Your task to perform on an android device: add a contact Image 0: 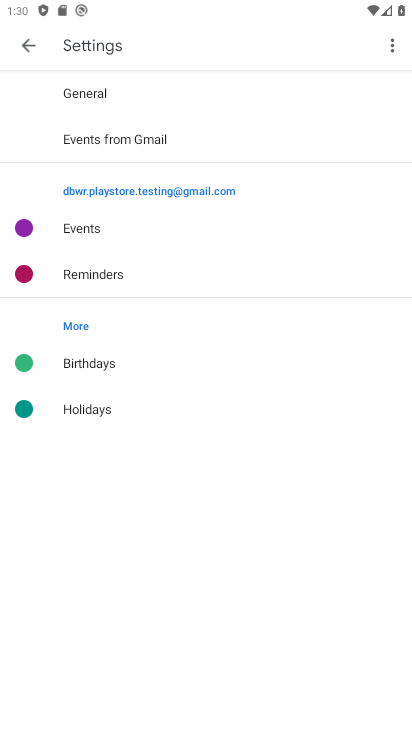
Step 0: press home button
Your task to perform on an android device: add a contact Image 1: 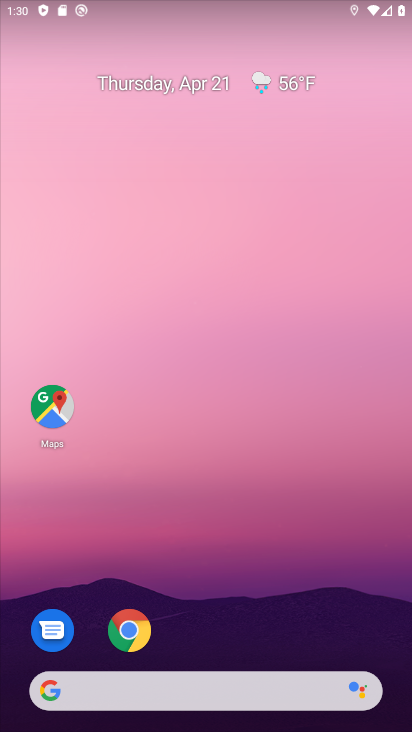
Step 1: drag from (271, 573) to (202, 113)
Your task to perform on an android device: add a contact Image 2: 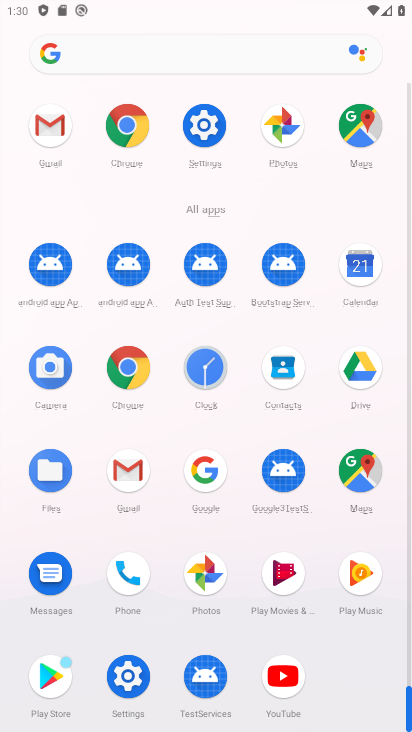
Step 2: click (285, 372)
Your task to perform on an android device: add a contact Image 3: 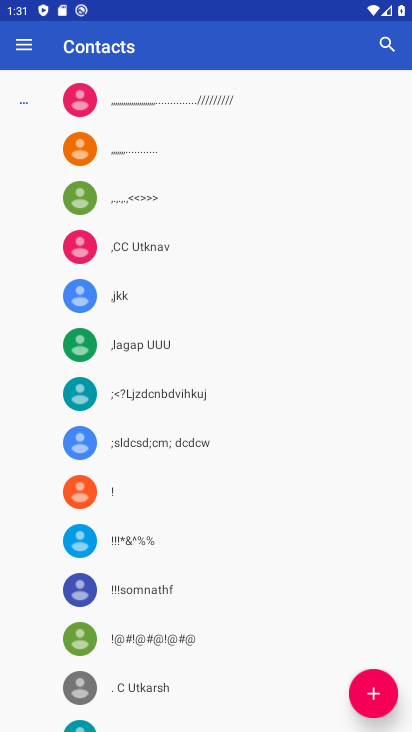
Step 3: click (368, 686)
Your task to perform on an android device: add a contact Image 4: 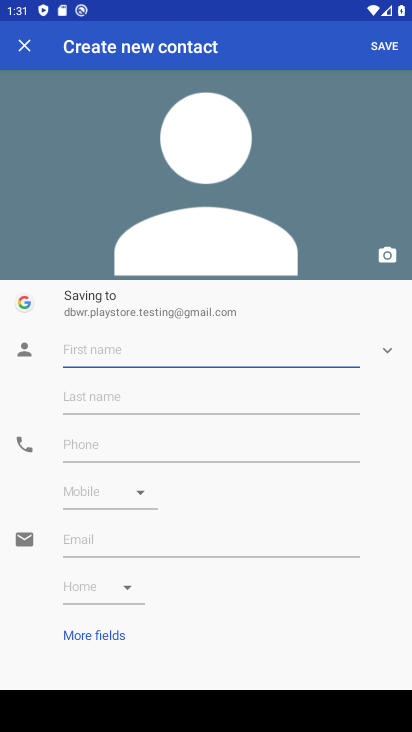
Step 4: type "opppp"
Your task to perform on an android device: add a contact Image 5: 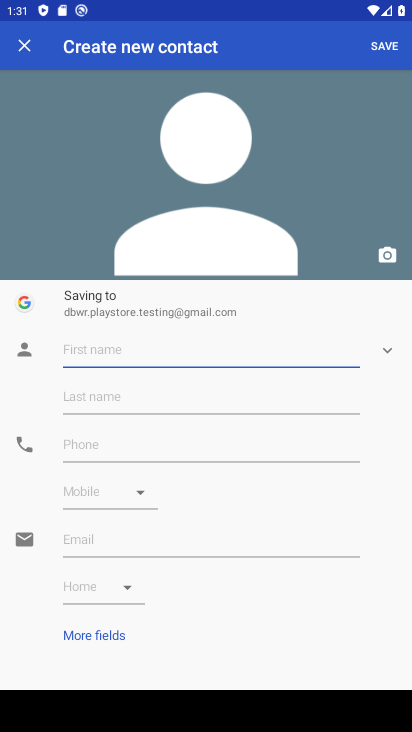
Step 5: click (133, 452)
Your task to perform on an android device: add a contact Image 6: 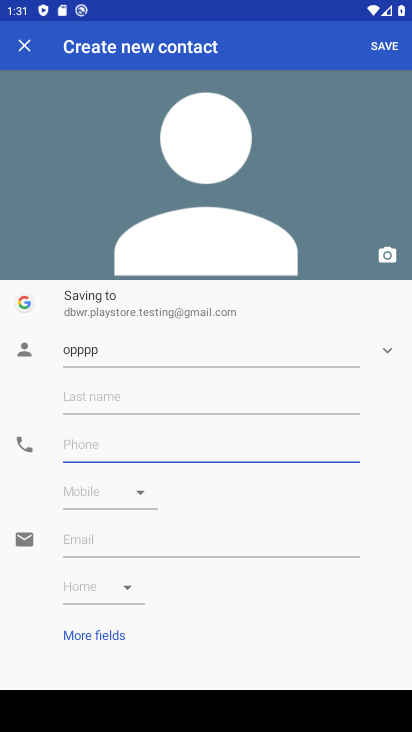
Step 6: type "122345678901"
Your task to perform on an android device: add a contact Image 7: 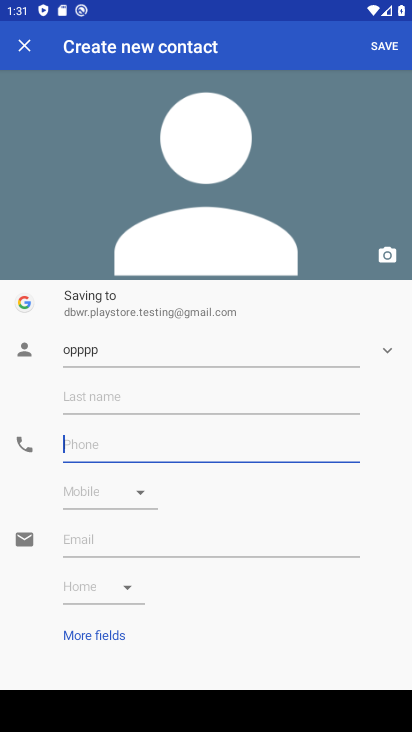
Step 7: click (388, 49)
Your task to perform on an android device: add a contact Image 8: 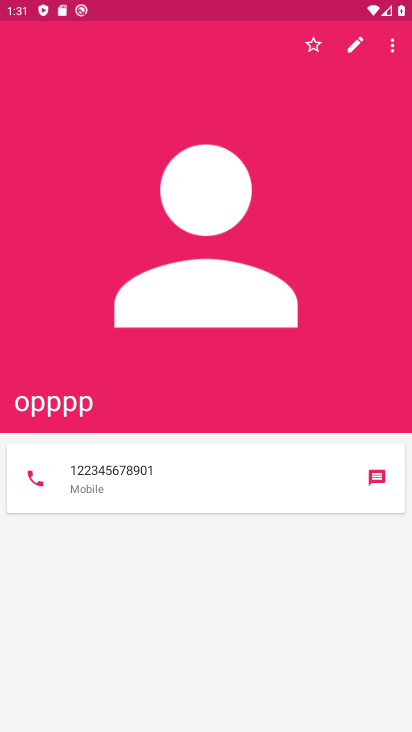
Step 8: task complete